Your task to perform on an android device: create a new album in the google photos Image 0: 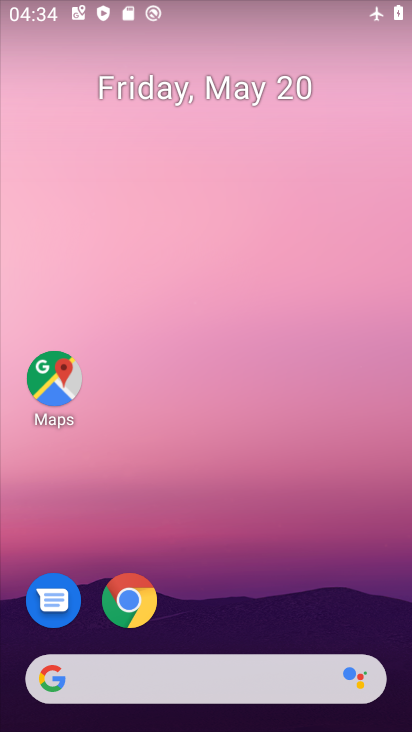
Step 0: drag from (195, 526) to (194, 15)
Your task to perform on an android device: create a new album in the google photos Image 1: 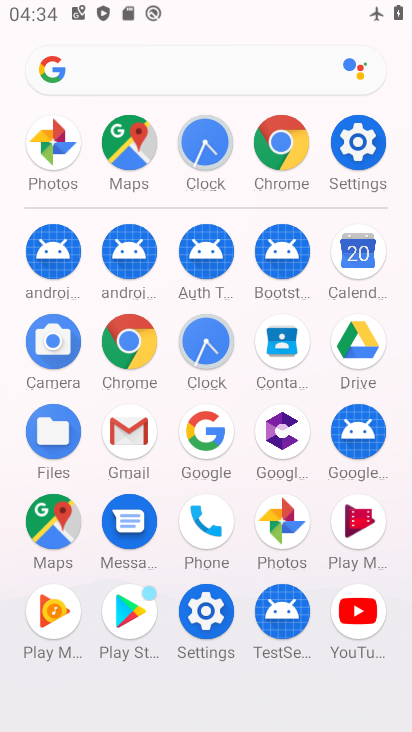
Step 1: drag from (11, 573) to (9, 254)
Your task to perform on an android device: create a new album in the google photos Image 2: 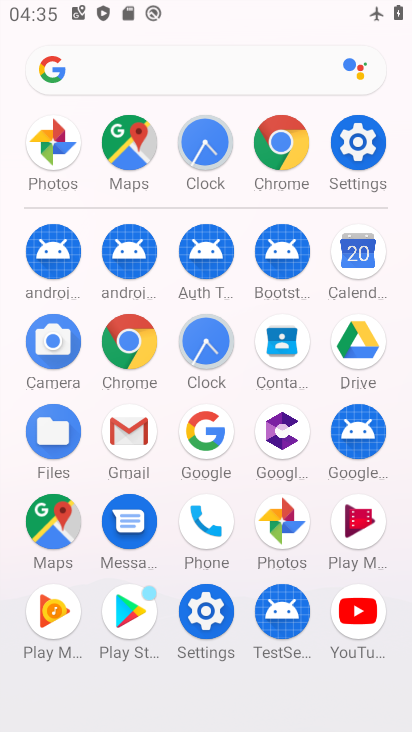
Step 2: click (277, 512)
Your task to perform on an android device: create a new album in the google photos Image 3: 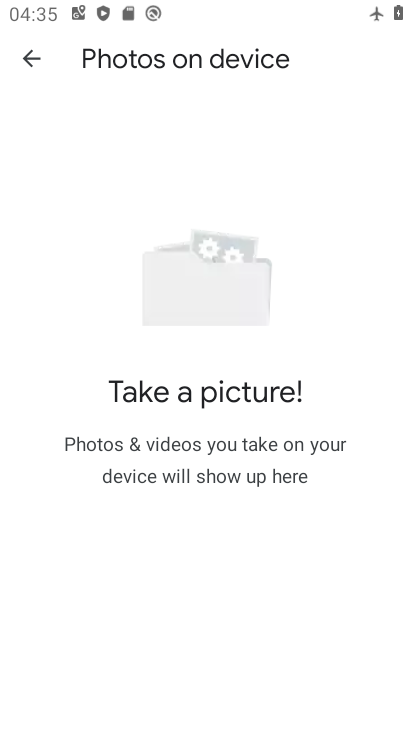
Step 3: click (25, 40)
Your task to perform on an android device: create a new album in the google photos Image 4: 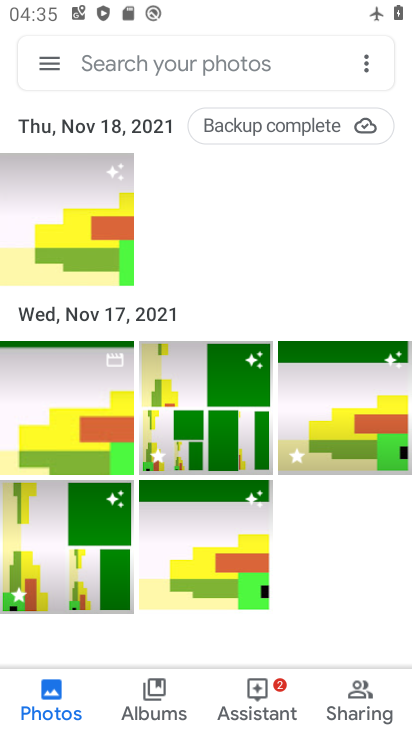
Step 4: click (67, 232)
Your task to perform on an android device: create a new album in the google photos Image 5: 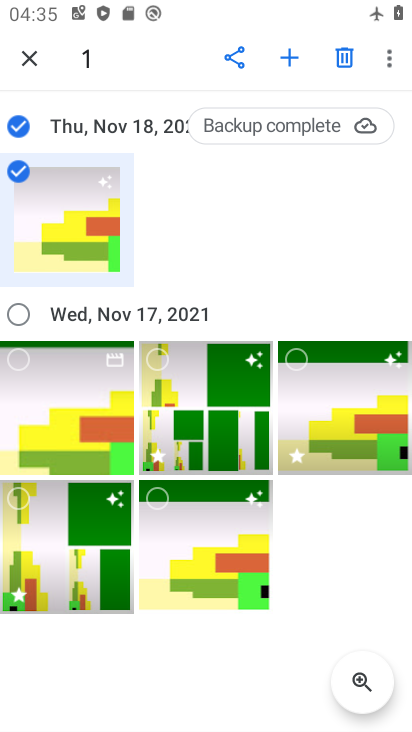
Step 5: click (294, 52)
Your task to perform on an android device: create a new album in the google photos Image 6: 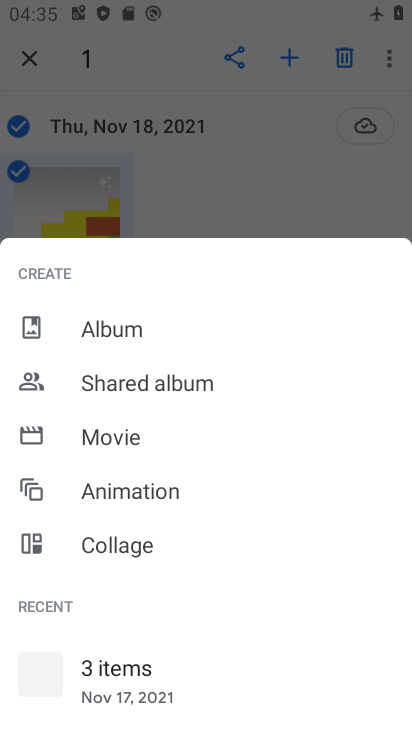
Step 6: click (114, 327)
Your task to perform on an android device: create a new album in the google photos Image 7: 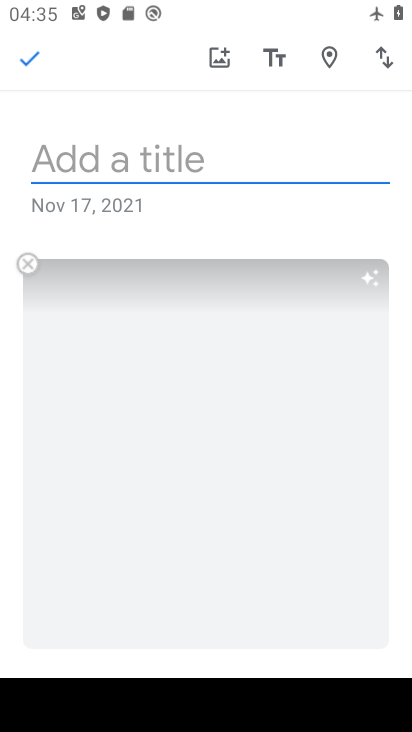
Step 7: type "SDFGHJKL"
Your task to perform on an android device: create a new album in the google photos Image 8: 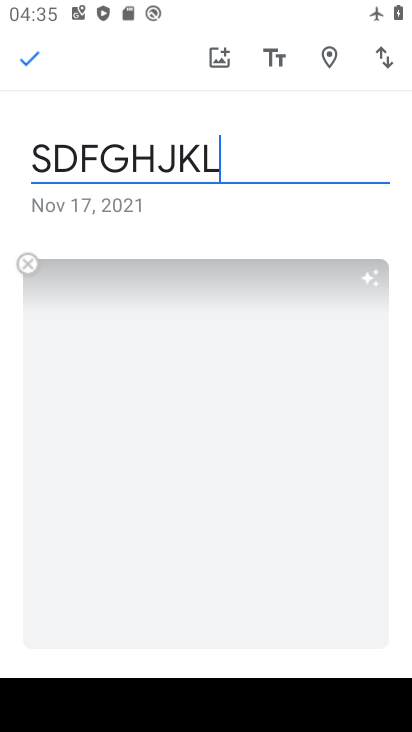
Step 8: type ""
Your task to perform on an android device: create a new album in the google photos Image 9: 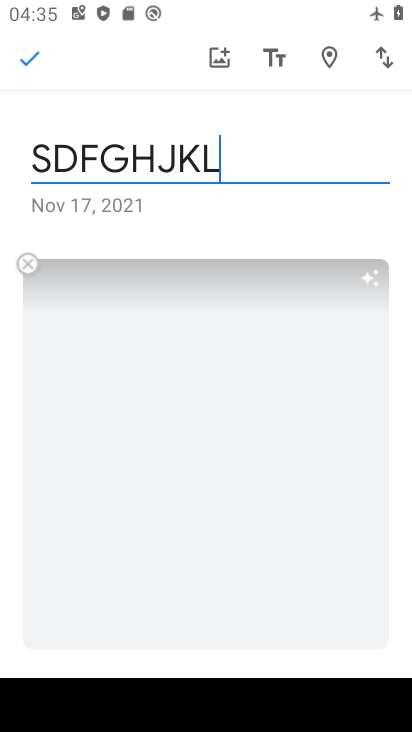
Step 9: click (28, 57)
Your task to perform on an android device: create a new album in the google photos Image 10: 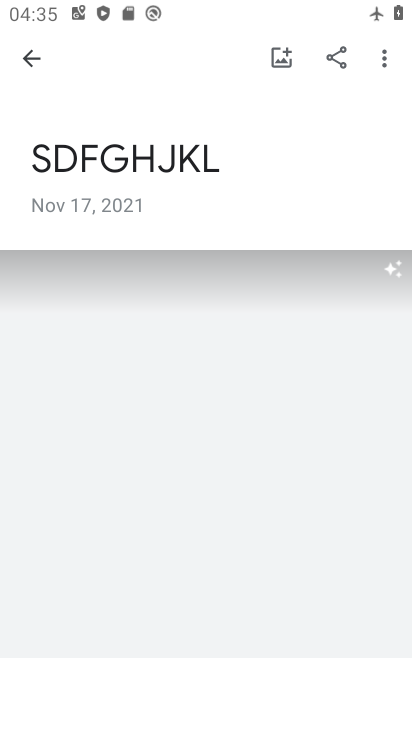
Step 10: task complete